Your task to perform on an android device: Open Wikipedia Image 0: 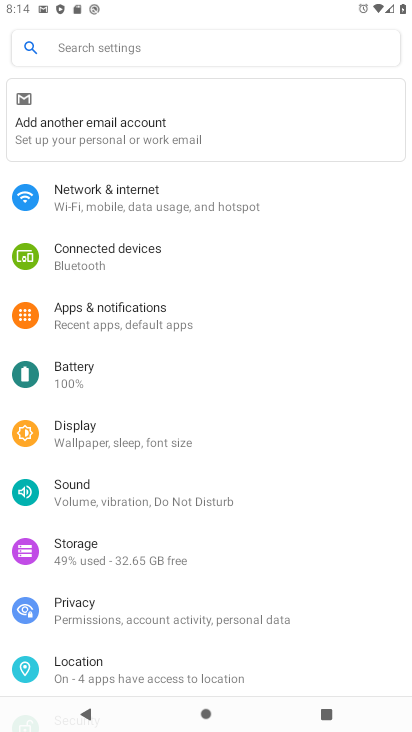
Step 0: press home button
Your task to perform on an android device: Open Wikipedia Image 1: 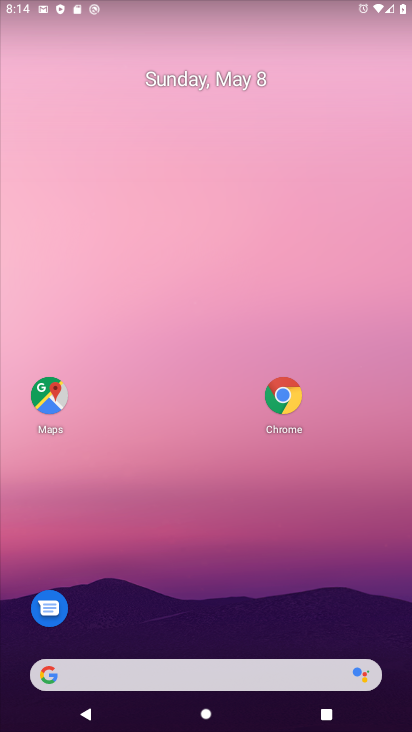
Step 1: click (291, 404)
Your task to perform on an android device: Open Wikipedia Image 2: 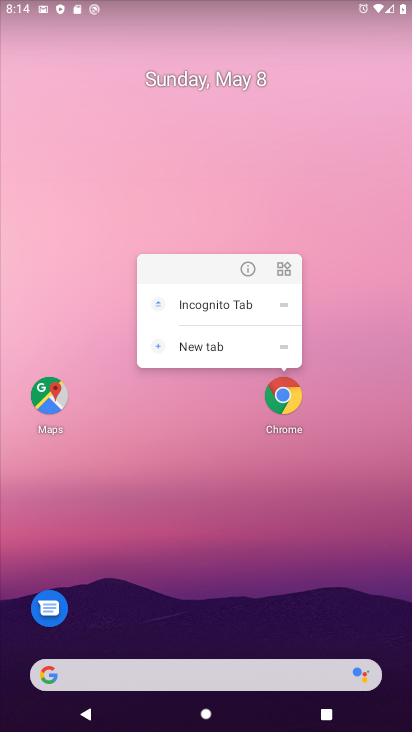
Step 2: click (285, 407)
Your task to perform on an android device: Open Wikipedia Image 3: 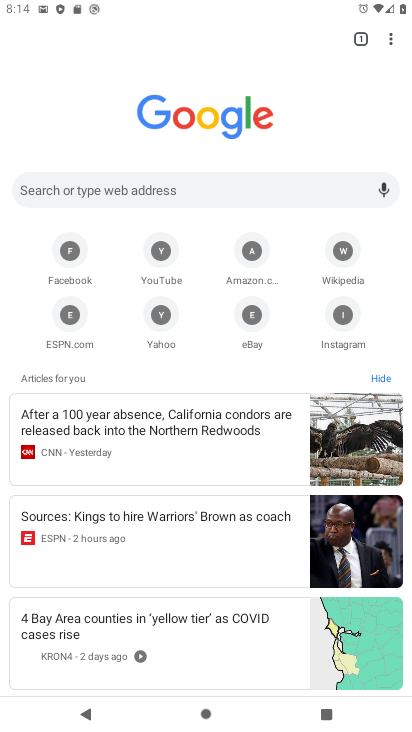
Step 3: click (345, 262)
Your task to perform on an android device: Open Wikipedia Image 4: 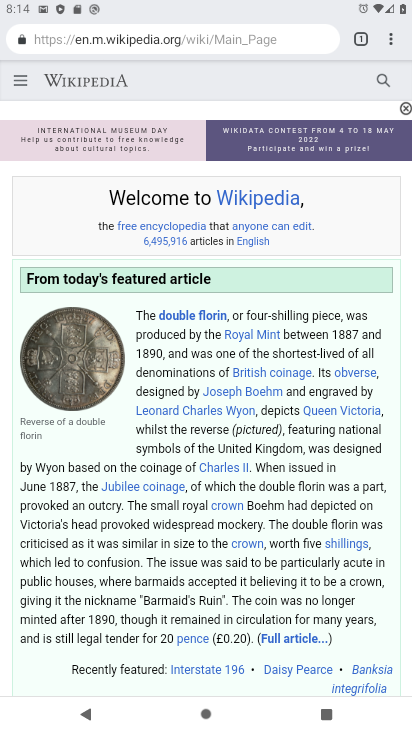
Step 4: task complete